Your task to perform on an android device: change timer sound Image 0: 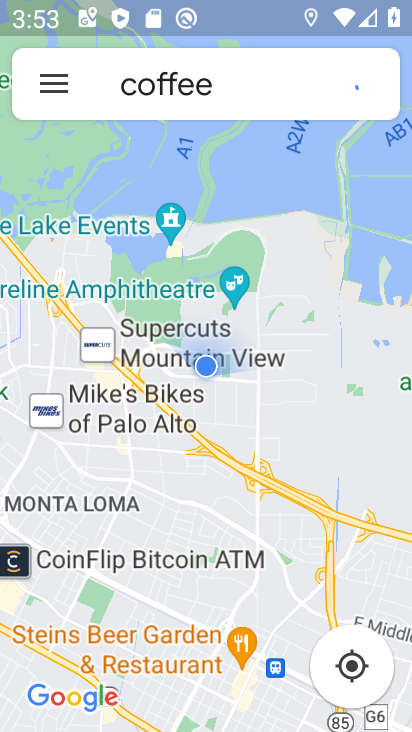
Step 0: press home button
Your task to perform on an android device: change timer sound Image 1: 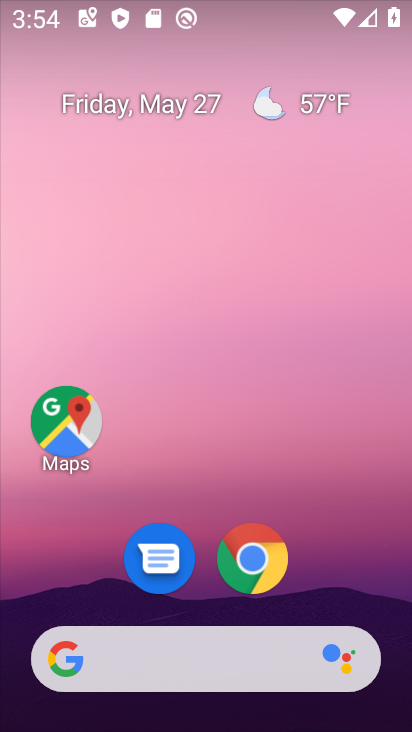
Step 1: drag from (369, 572) to (311, 22)
Your task to perform on an android device: change timer sound Image 2: 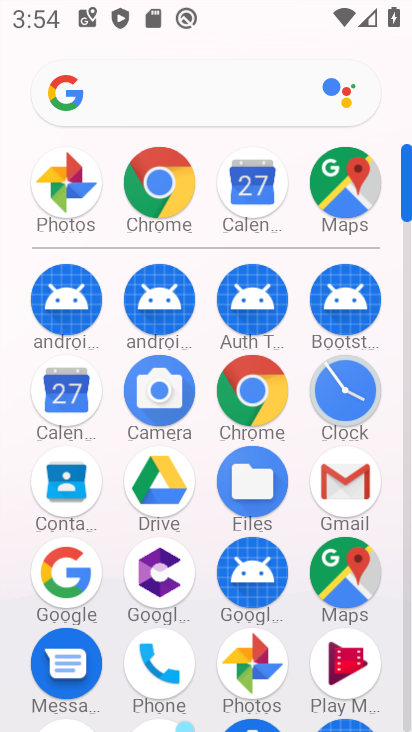
Step 2: click (403, 666)
Your task to perform on an android device: change timer sound Image 3: 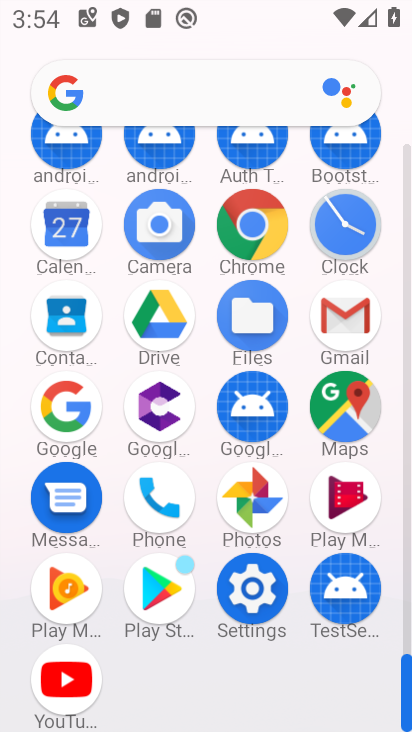
Step 3: click (344, 261)
Your task to perform on an android device: change timer sound Image 4: 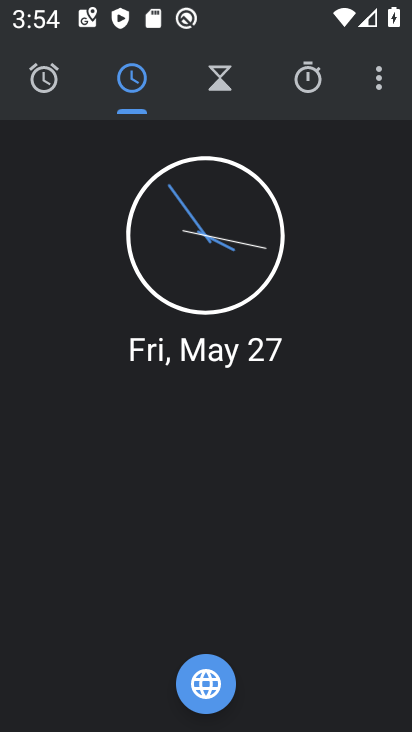
Step 4: click (374, 67)
Your task to perform on an android device: change timer sound Image 5: 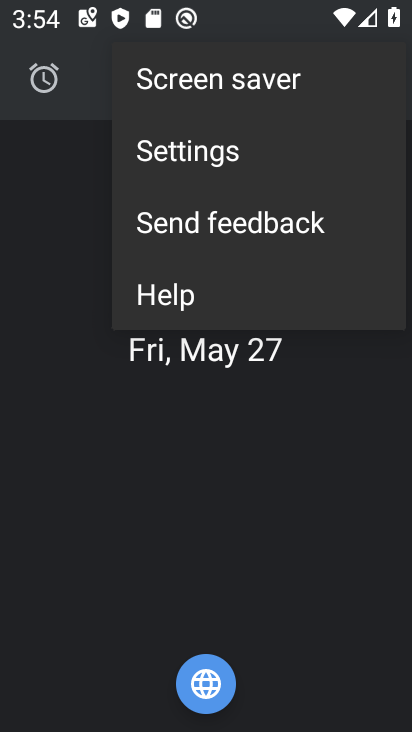
Step 5: click (328, 174)
Your task to perform on an android device: change timer sound Image 6: 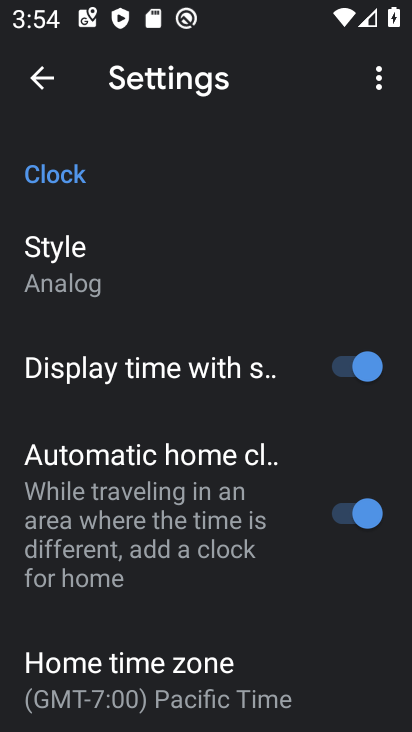
Step 6: drag from (243, 494) to (228, 219)
Your task to perform on an android device: change timer sound Image 7: 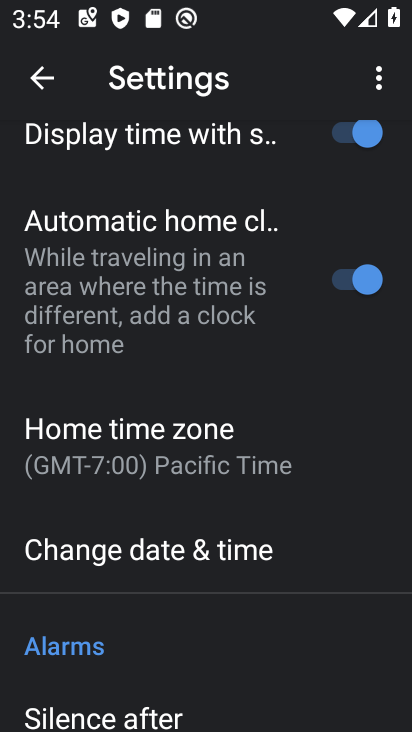
Step 7: drag from (253, 556) to (233, 159)
Your task to perform on an android device: change timer sound Image 8: 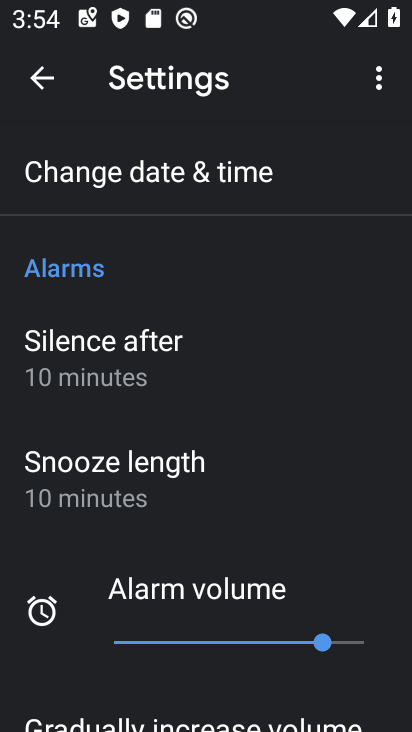
Step 8: drag from (255, 615) to (238, 439)
Your task to perform on an android device: change timer sound Image 9: 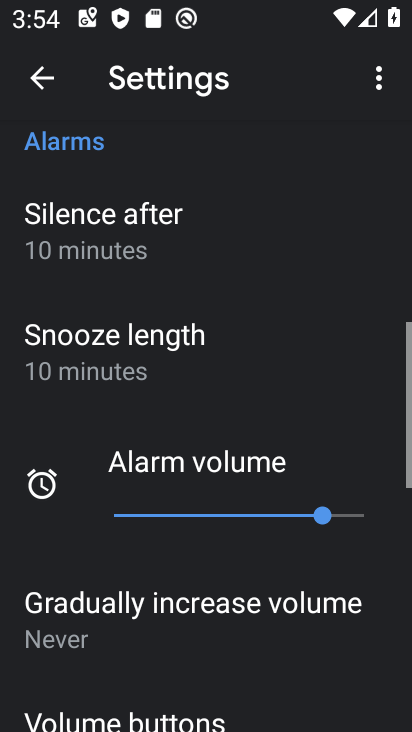
Step 9: drag from (238, 439) to (222, 231)
Your task to perform on an android device: change timer sound Image 10: 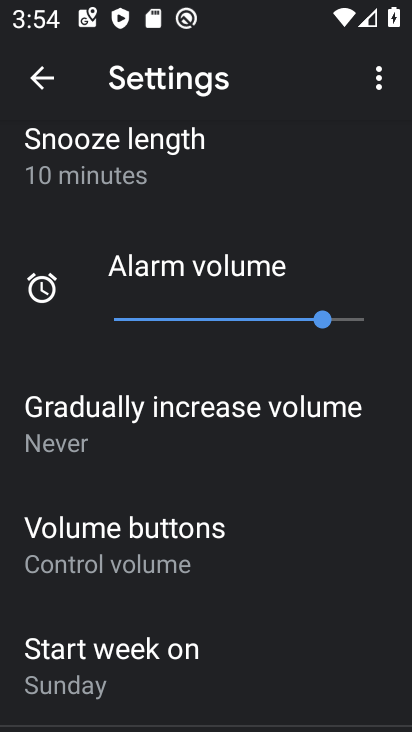
Step 10: drag from (137, 568) to (146, 49)
Your task to perform on an android device: change timer sound Image 11: 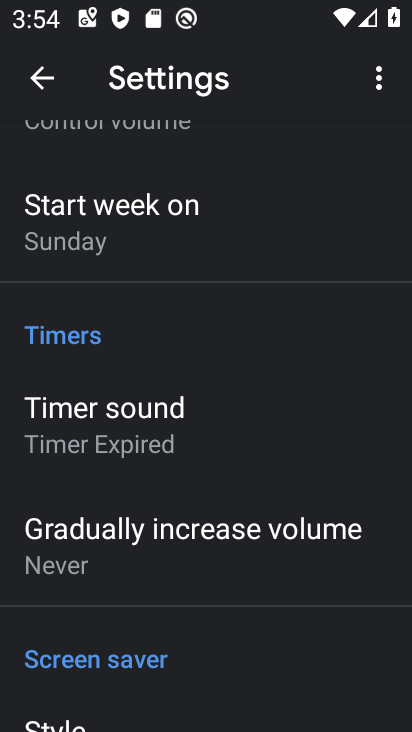
Step 11: click (192, 463)
Your task to perform on an android device: change timer sound Image 12: 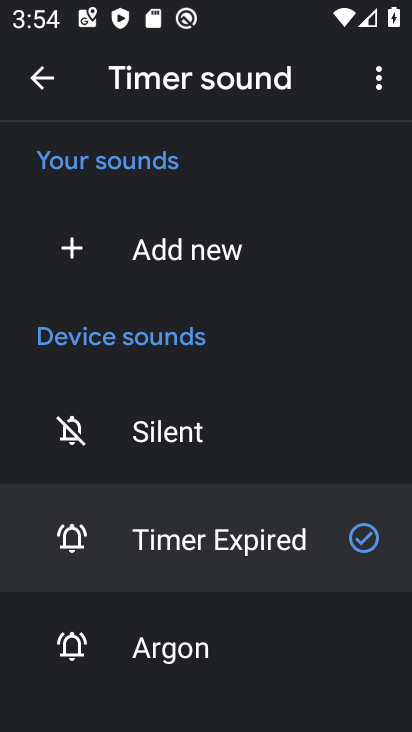
Step 12: click (171, 446)
Your task to perform on an android device: change timer sound Image 13: 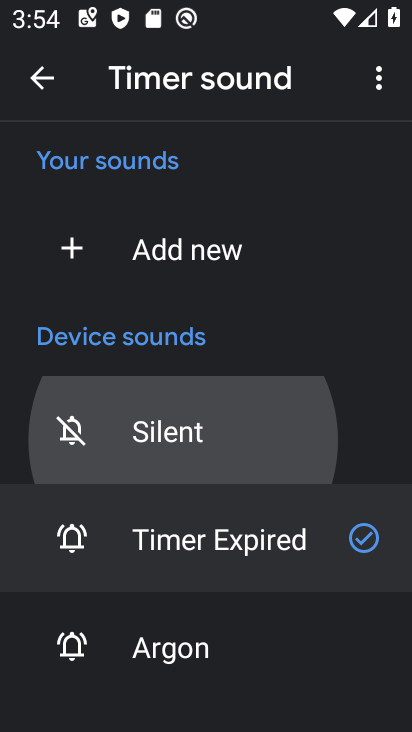
Step 13: click (243, 674)
Your task to perform on an android device: change timer sound Image 14: 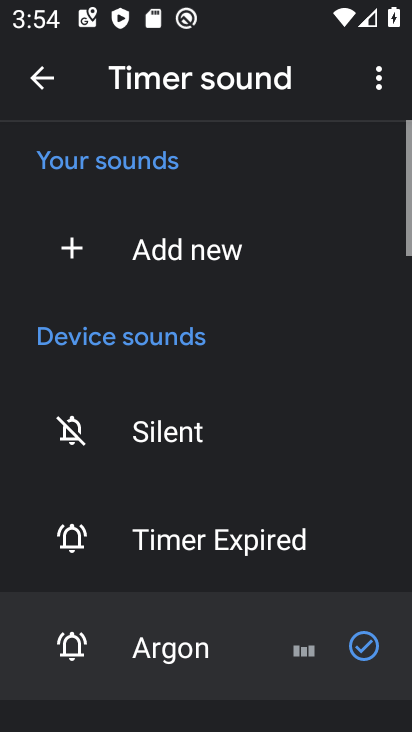
Step 14: task complete